Your task to perform on an android device: Open calendar and show me the third week of next month Image 0: 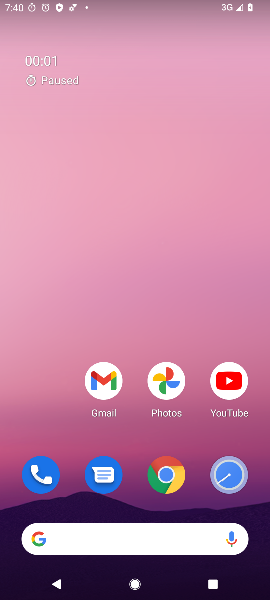
Step 0: drag from (246, 436) to (94, 0)
Your task to perform on an android device: Open calendar and show me the third week of next month Image 1: 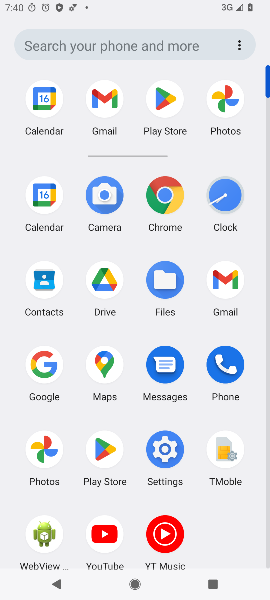
Step 1: click (49, 196)
Your task to perform on an android device: Open calendar and show me the third week of next month Image 2: 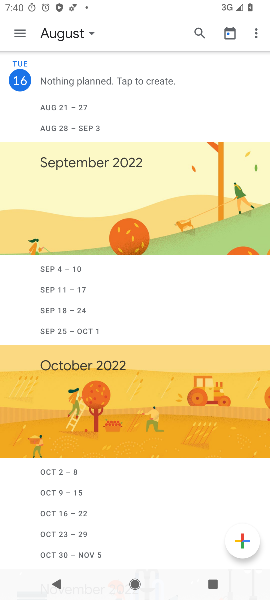
Step 2: click (65, 42)
Your task to perform on an android device: Open calendar and show me the third week of next month Image 3: 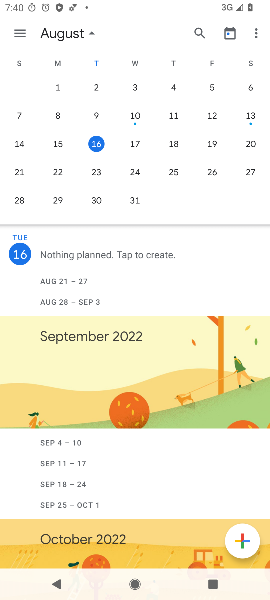
Step 3: drag from (248, 158) to (0, 139)
Your task to perform on an android device: Open calendar and show me the third week of next month Image 4: 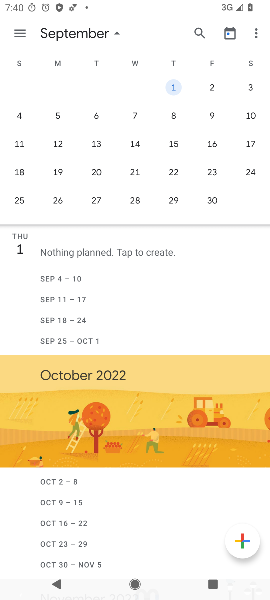
Step 4: click (24, 173)
Your task to perform on an android device: Open calendar and show me the third week of next month Image 5: 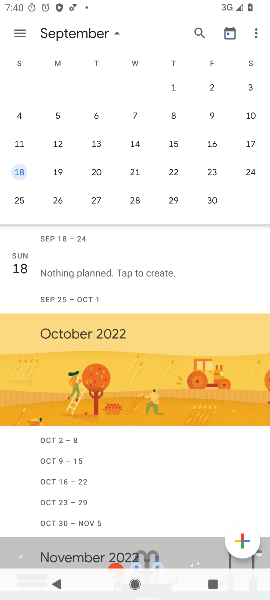
Step 5: task complete